Your task to perform on an android device: Clear all items from cart on target. Search for "apple airpods pro" on target, select the first entry, and add it to the cart. Image 0: 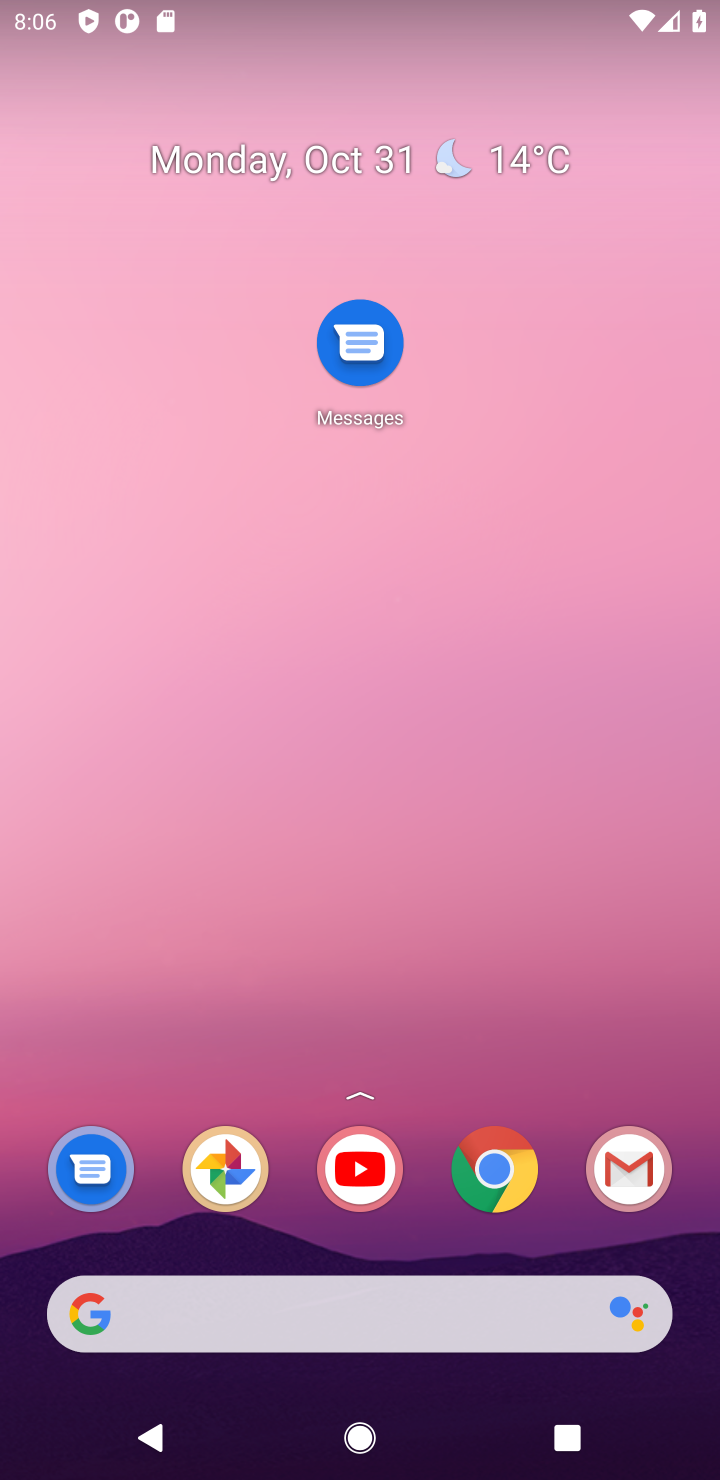
Step 0: drag from (428, 905) to (468, 496)
Your task to perform on an android device: Clear all items from cart on target. Search for "apple airpods pro" on target, select the first entry, and add it to the cart. Image 1: 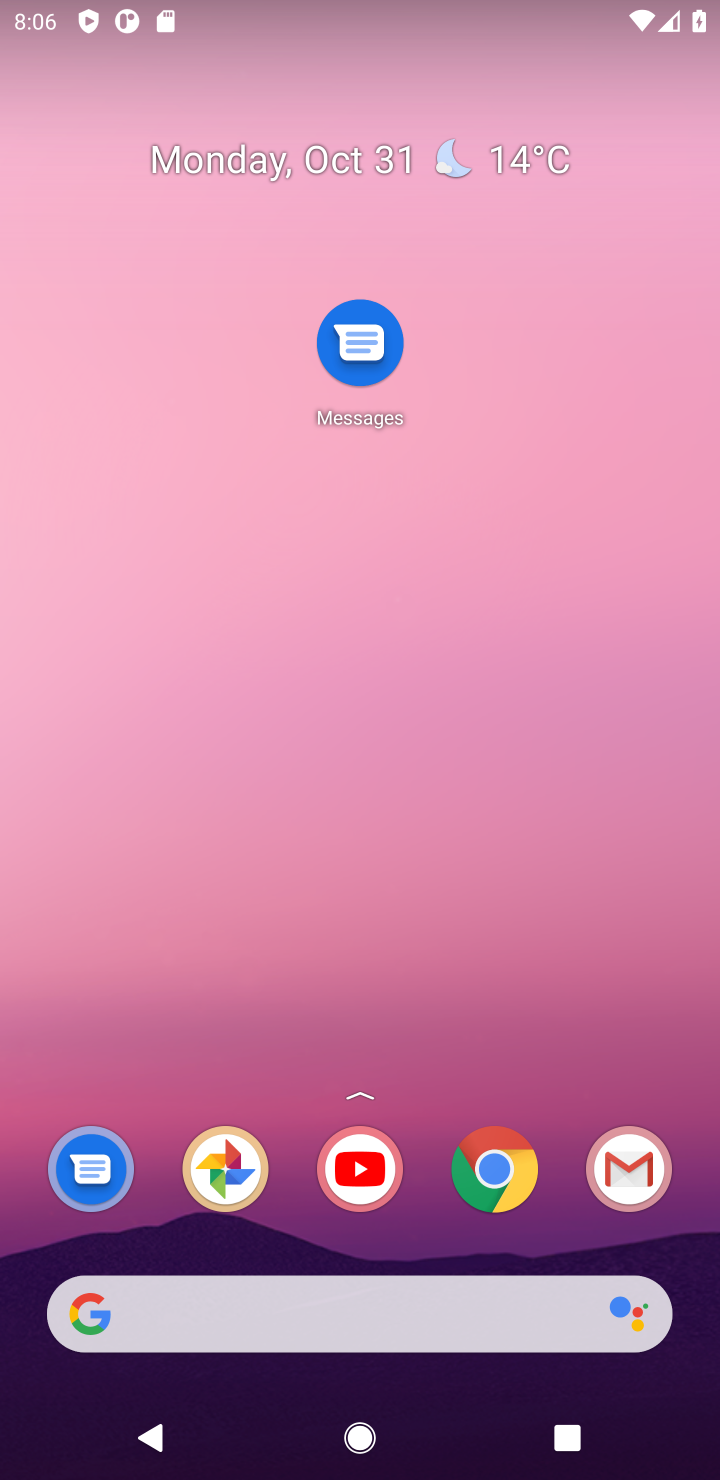
Step 1: drag from (327, 1149) to (289, 262)
Your task to perform on an android device: Clear all items from cart on target. Search for "apple airpods pro" on target, select the first entry, and add it to the cart. Image 2: 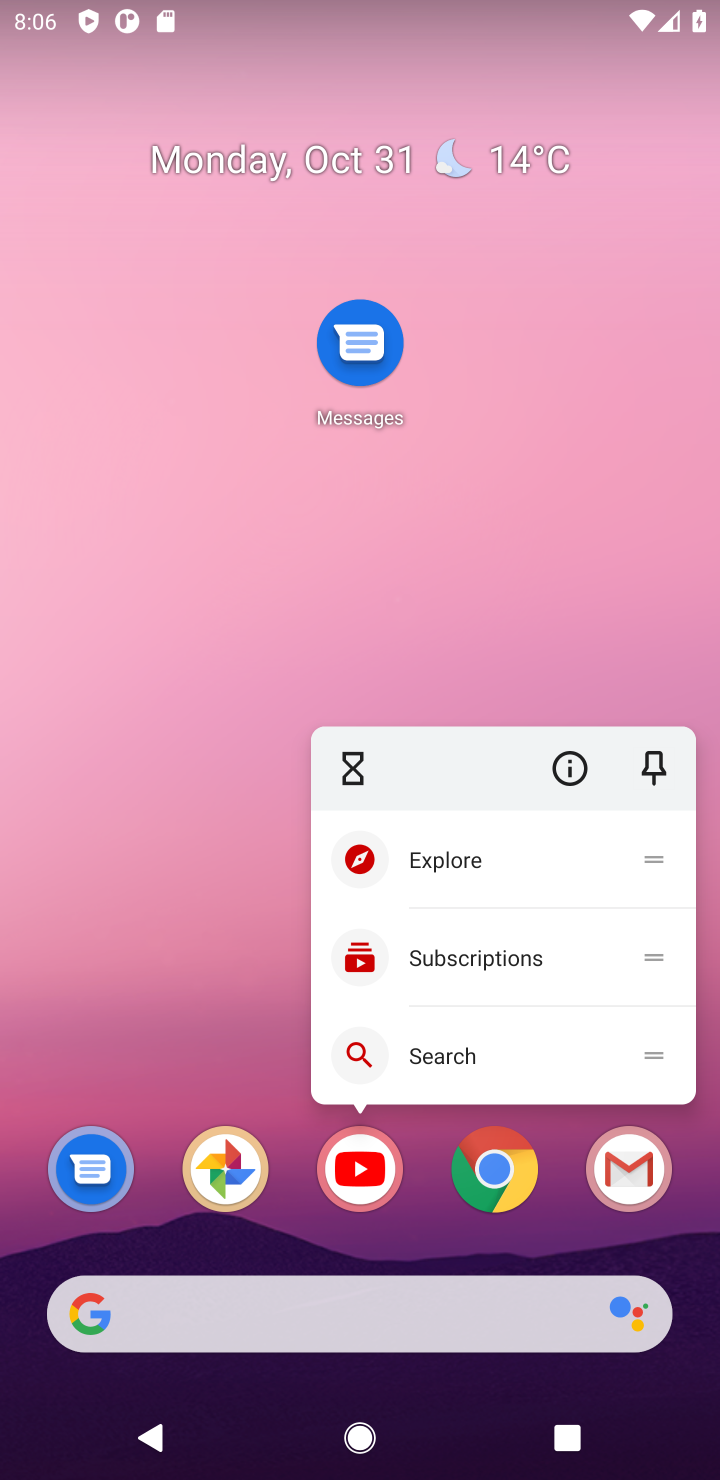
Step 2: click (134, 908)
Your task to perform on an android device: Clear all items from cart on target. Search for "apple airpods pro" on target, select the first entry, and add it to the cart. Image 3: 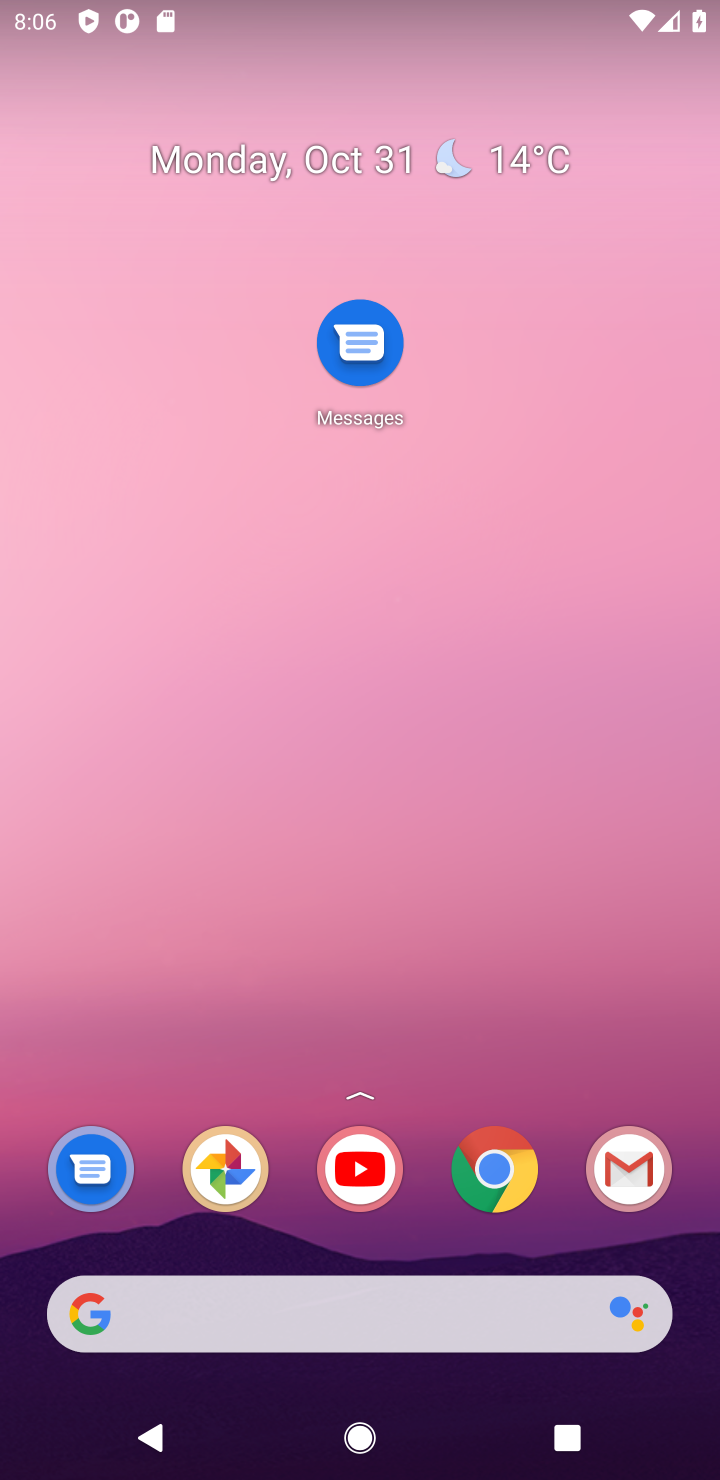
Step 3: drag from (347, 1141) to (401, 163)
Your task to perform on an android device: Clear all items from cart on target. Search for "apple airpods pro" on target, select the first entry, and add it to the cart. Image 4: 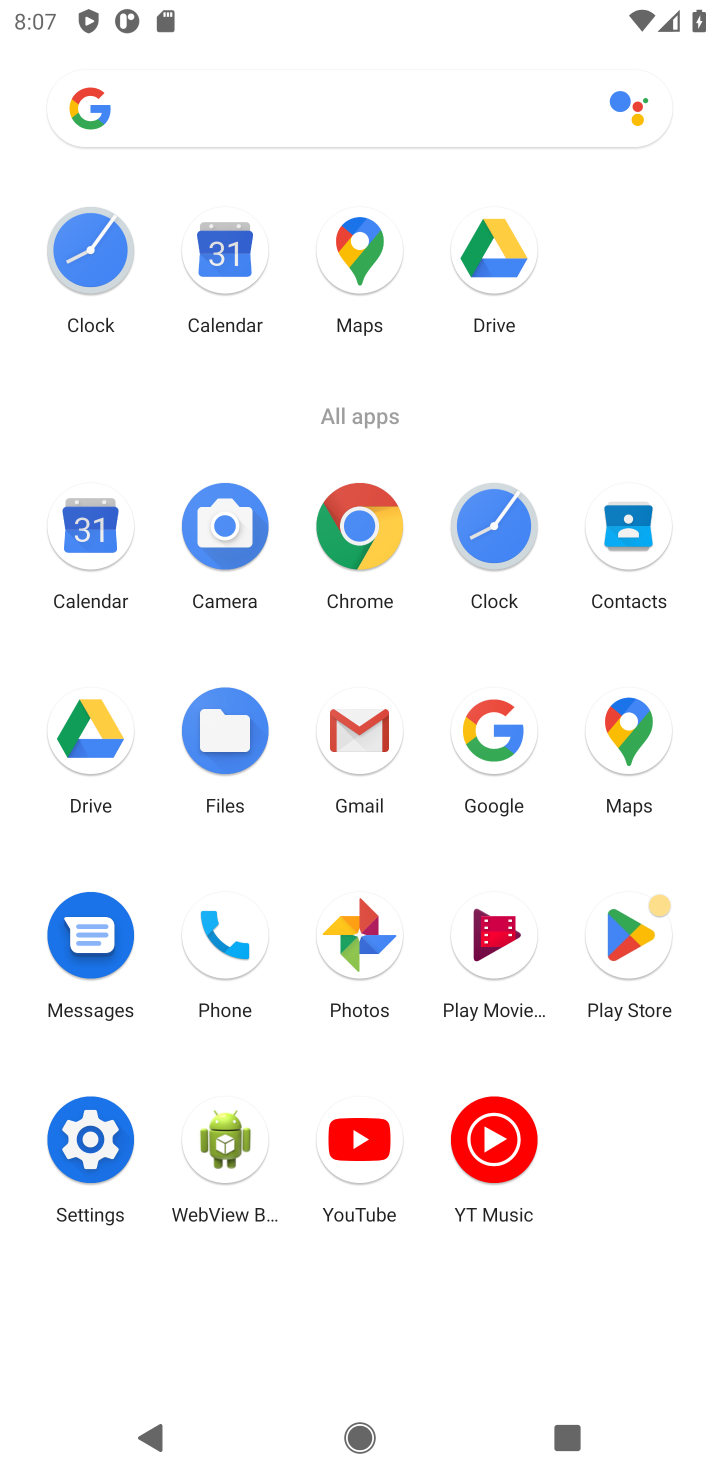
Step 4: click (491, 721)
Your task to perform on an android device: Clear all items from cart on target. Search for "apple airpods pro" on target, select the first entry, and add it to the cart. Image 5: 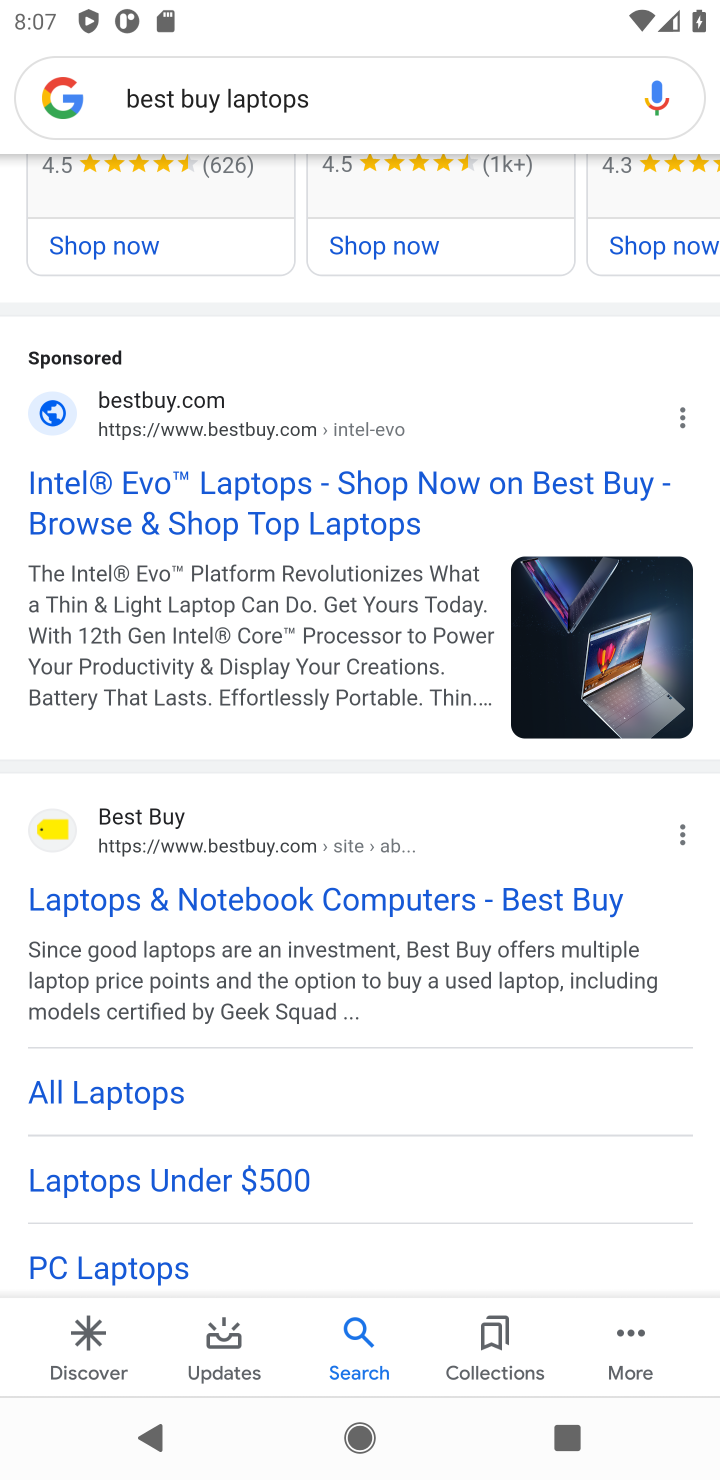
Step 5: click (362, 100)
Your task to perform on an android device: Clear all items from cart on target. Search for "apple airpods pro" on target, select the first entry, and add it to the cart. Image 6: 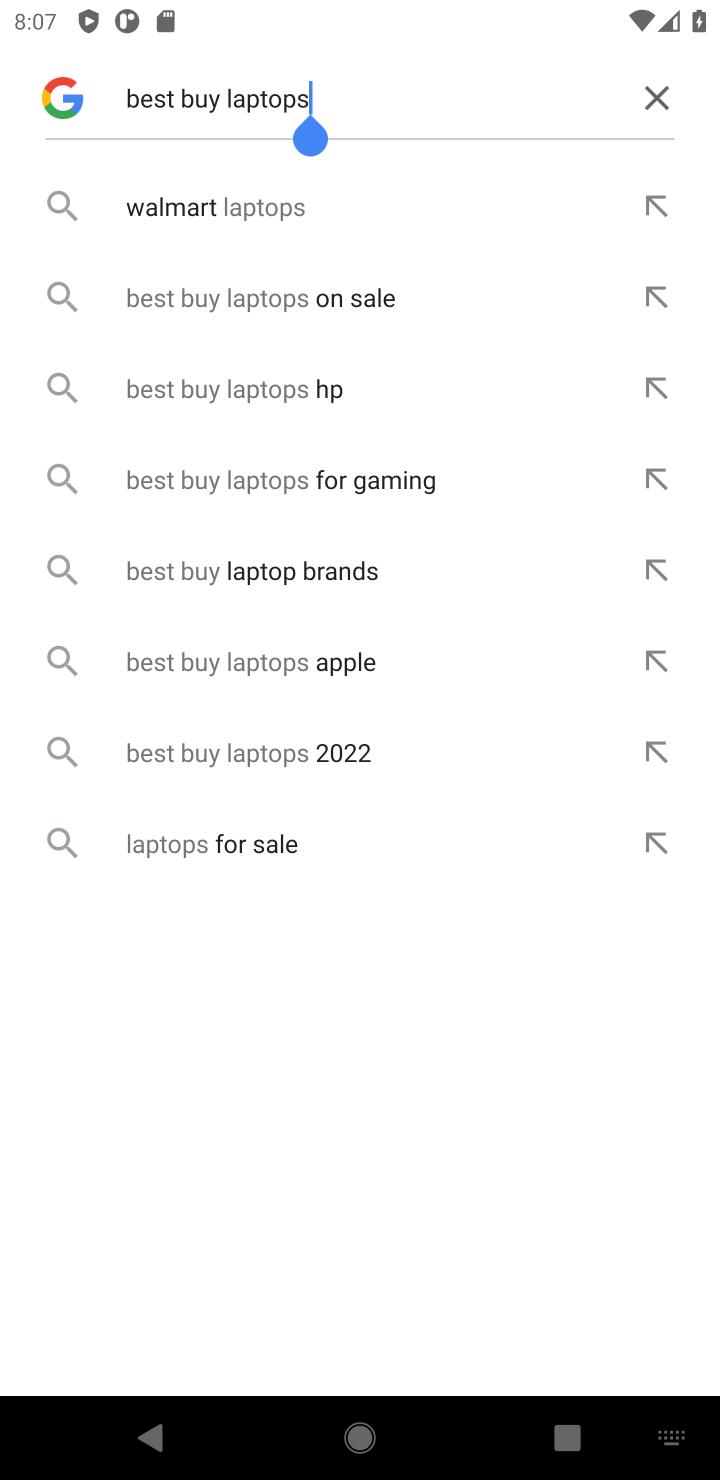
Step 6: click (652, 107)
Your task to perform on an android device: Clear all items from cart on target. Search for "apple airpods pro" on target, select the first entry, and add it to the cart. Image 7: 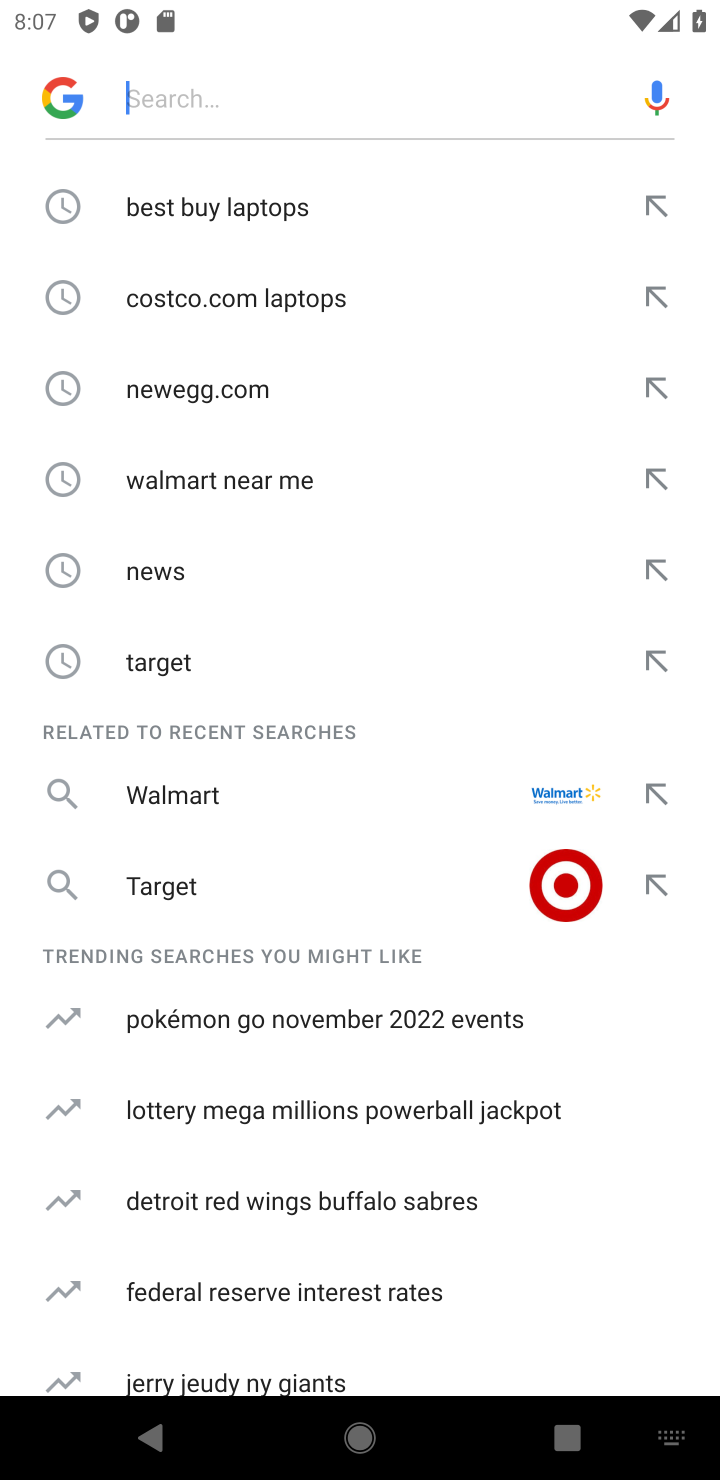
Step 7: click (288, 65)
Your task to perform on an android device: Clear all items from cart on target. Search for "apple airpods pro" on target, select the first entry, and add it to the cart. Image 8: 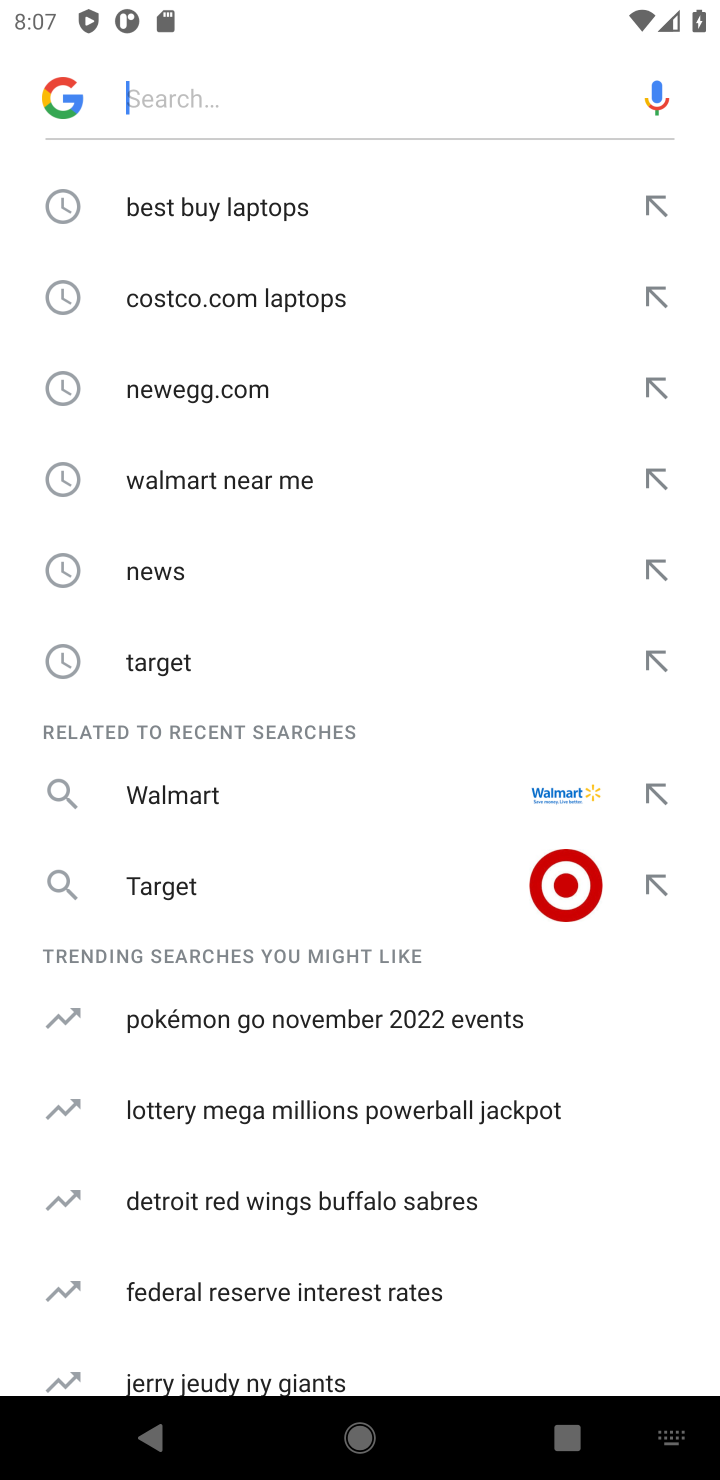
Step 8: type "target "
Your task to perform on an android device: Clear all items from cart on target. Search for "apple airpods pro" on target, select the first entry, and add it to the cart. Image 9: 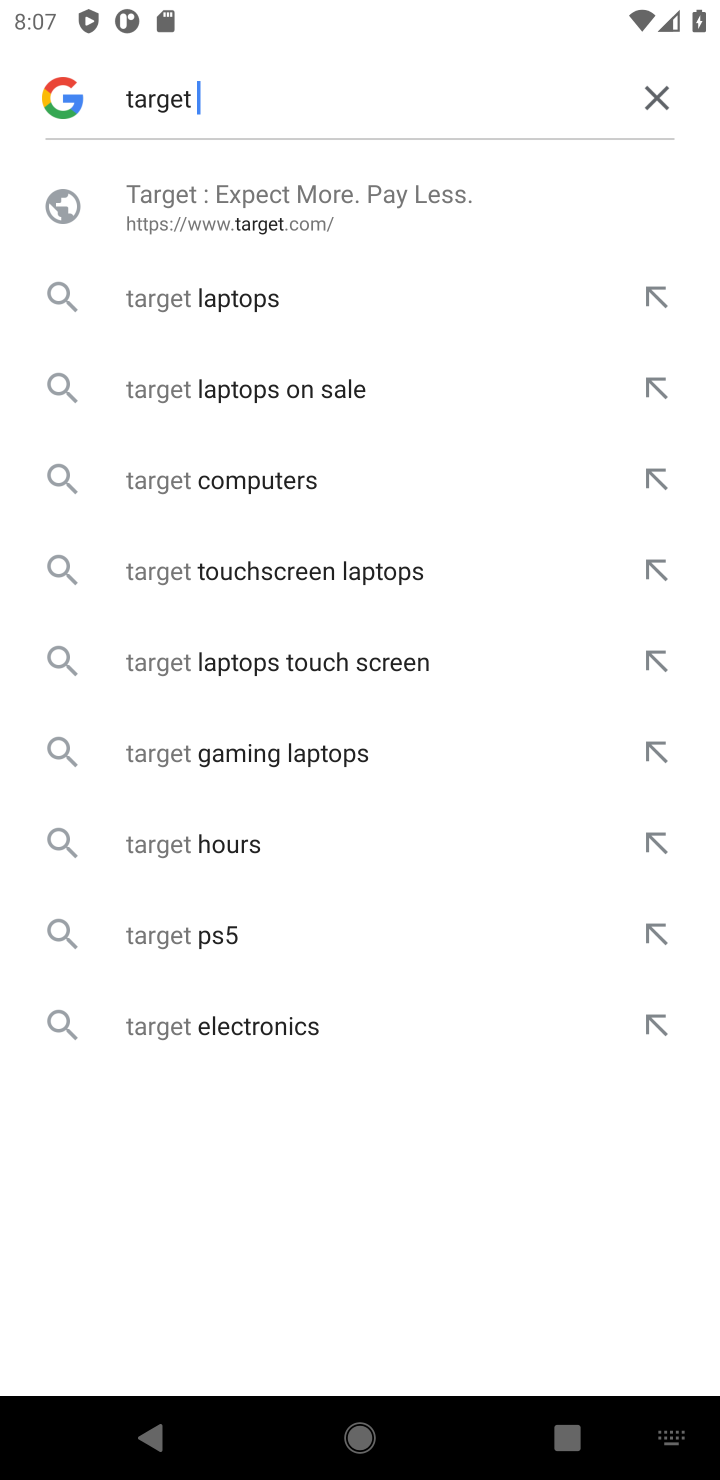
Step 9: click (274, 196)
Your task to perform on an android device: Clear all items from cart on target. Search for "apple airpods pro" on target, select the first entry, and add it to the cart. Image 10: 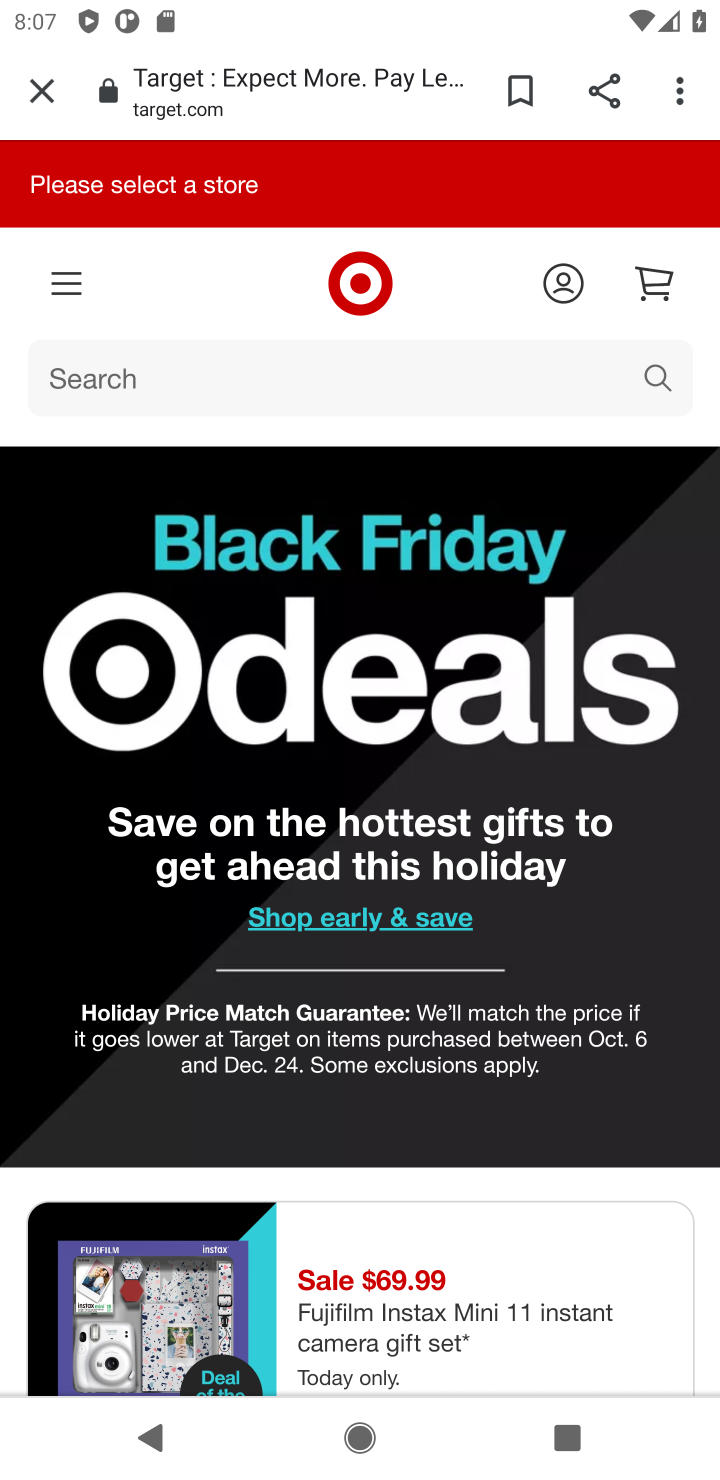
Step 10: click (211, 380)
Your task to perform on an android device: Clear all items from cart on target. Search for "apple airpods pro" on target, select the first entry, and add it to the cart. Image 11: 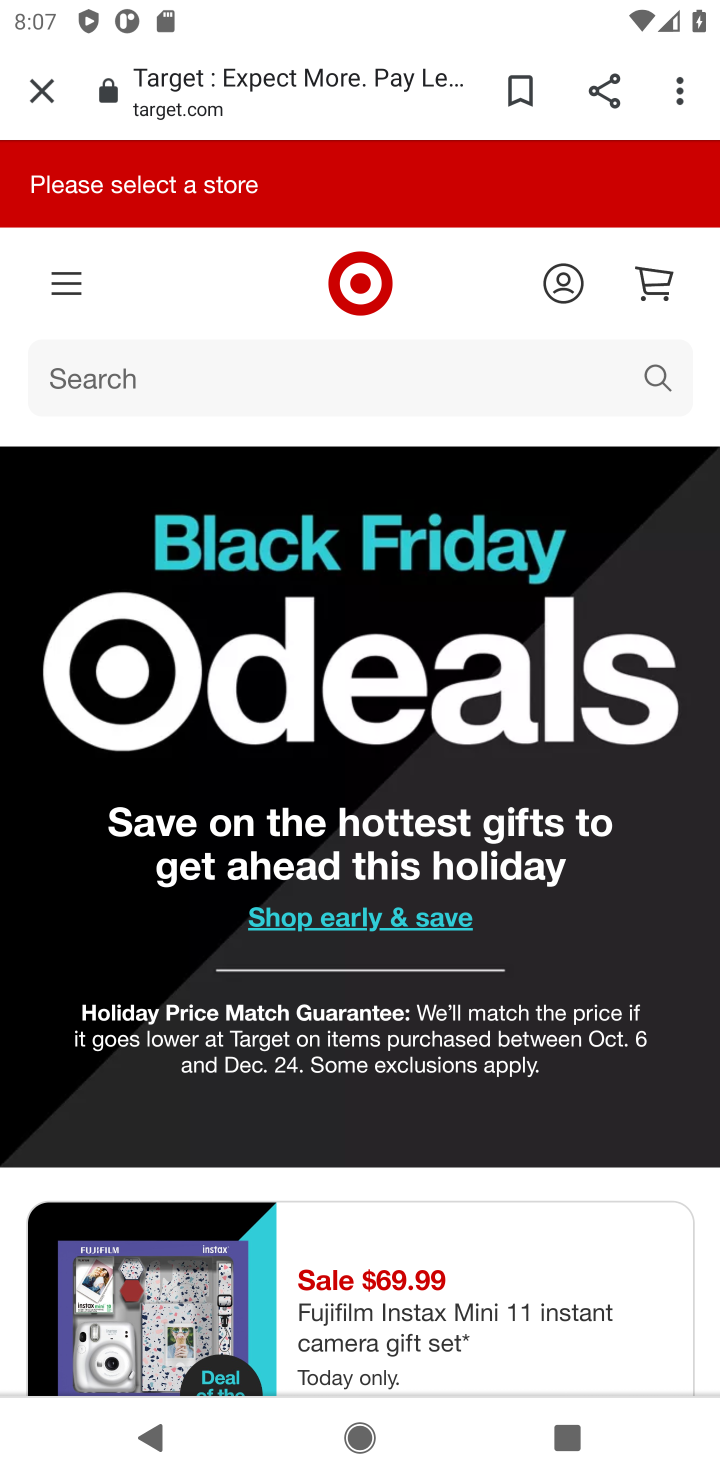
Step 11: type "airpods "
Your task to perform on an android device: Clear all items from cart on target. Search for "apple airpods pro" on target, select the first entry, and add it to the cart. Image 12: 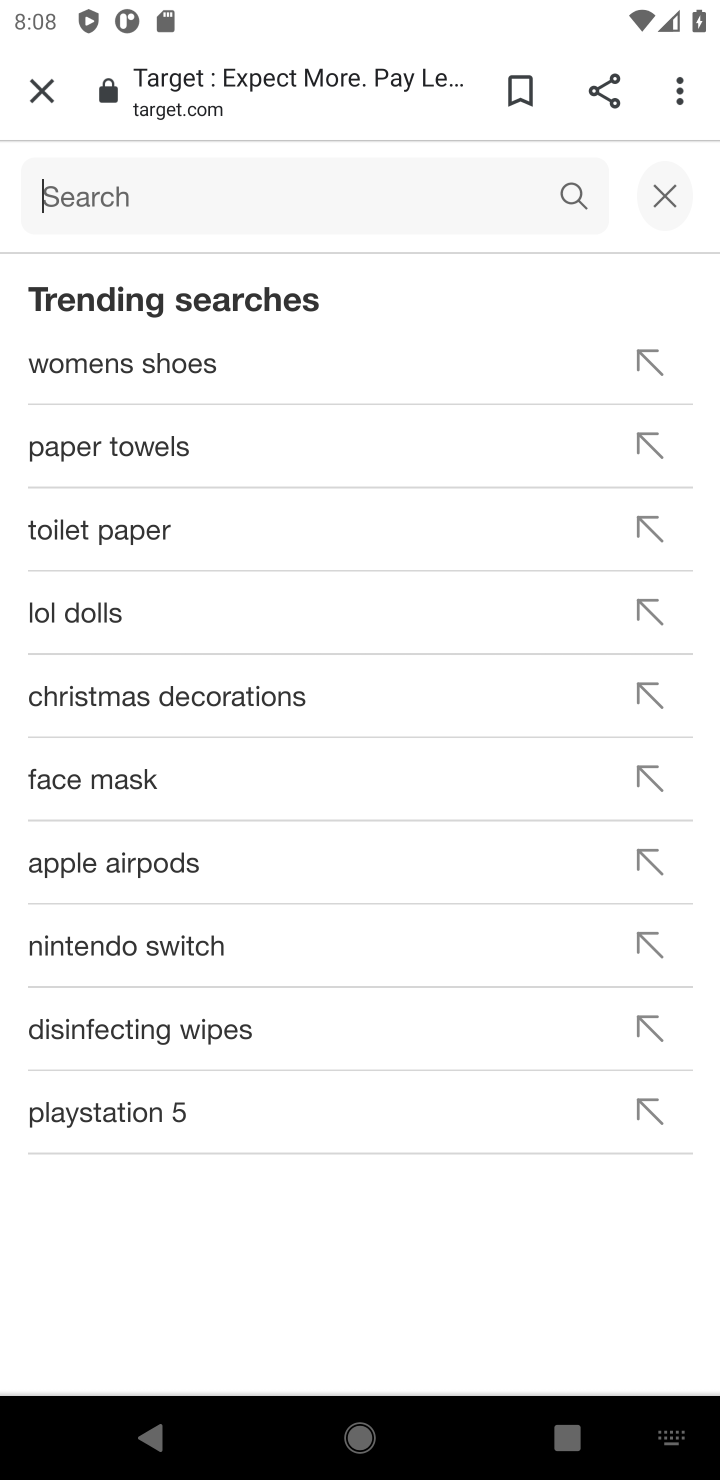
Step 12: click (289, 189)
Your task to perform on an android device: Clear all items from cart on target. Search for "apple airpods pro" on target, select the first entry, and add it to the cart. Image 13: 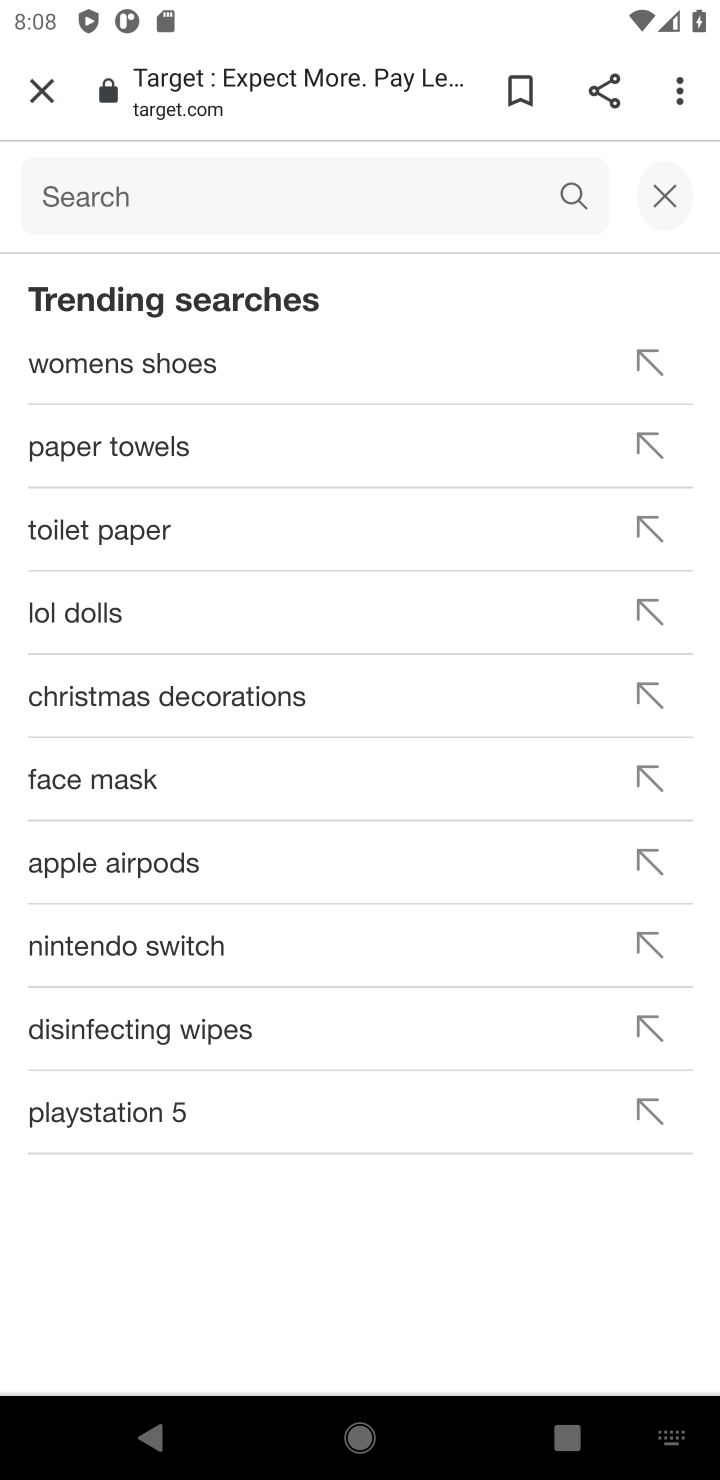
Step 13: type "airpods "
Your task to perform on an android device: Clear all items from cart on target. Search for "apple airpods pro" on target, select the first entry, and add it to the cart. Image 14: 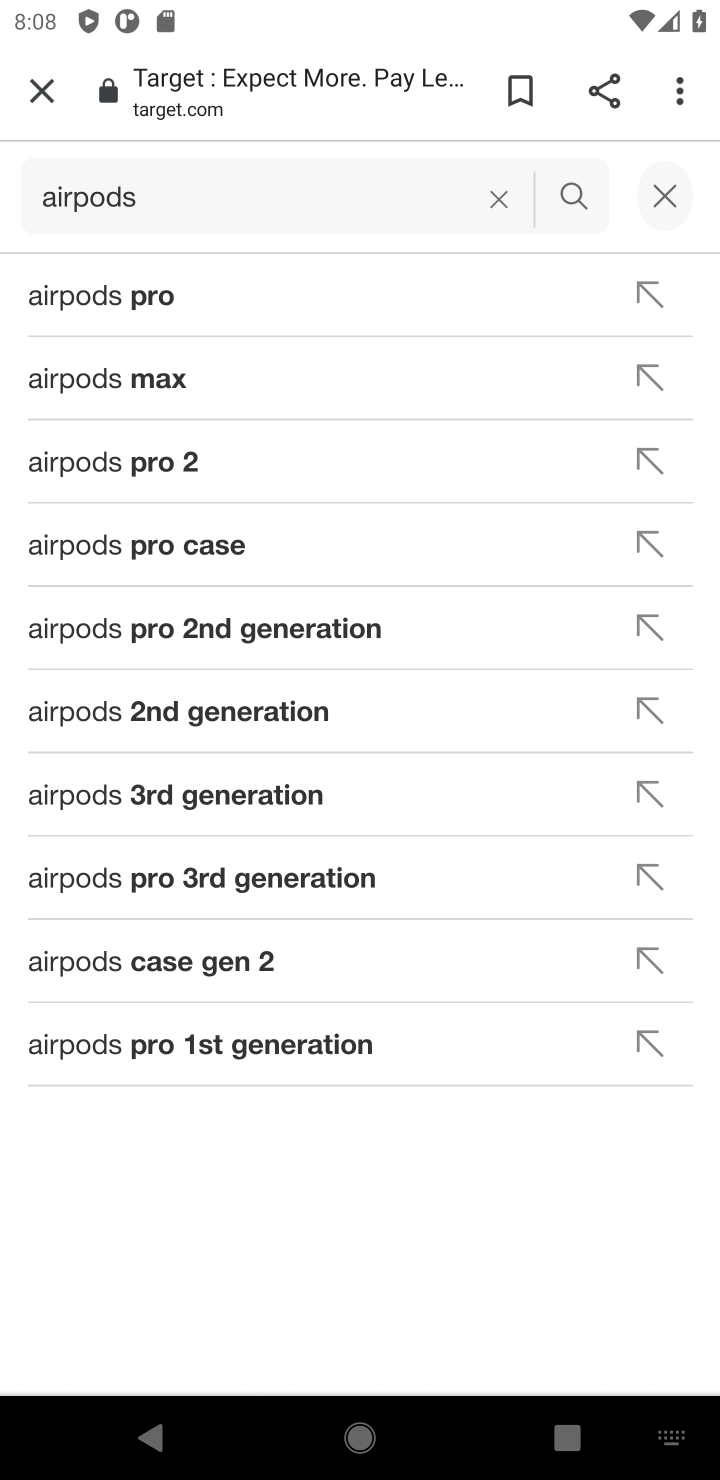
Step 14: click (223, 306)
Your task to perform on an android device: Clear all items from cart on target. Search for "apple airpods pro" on target, select the first entry, and add it to the cart. Image 15: 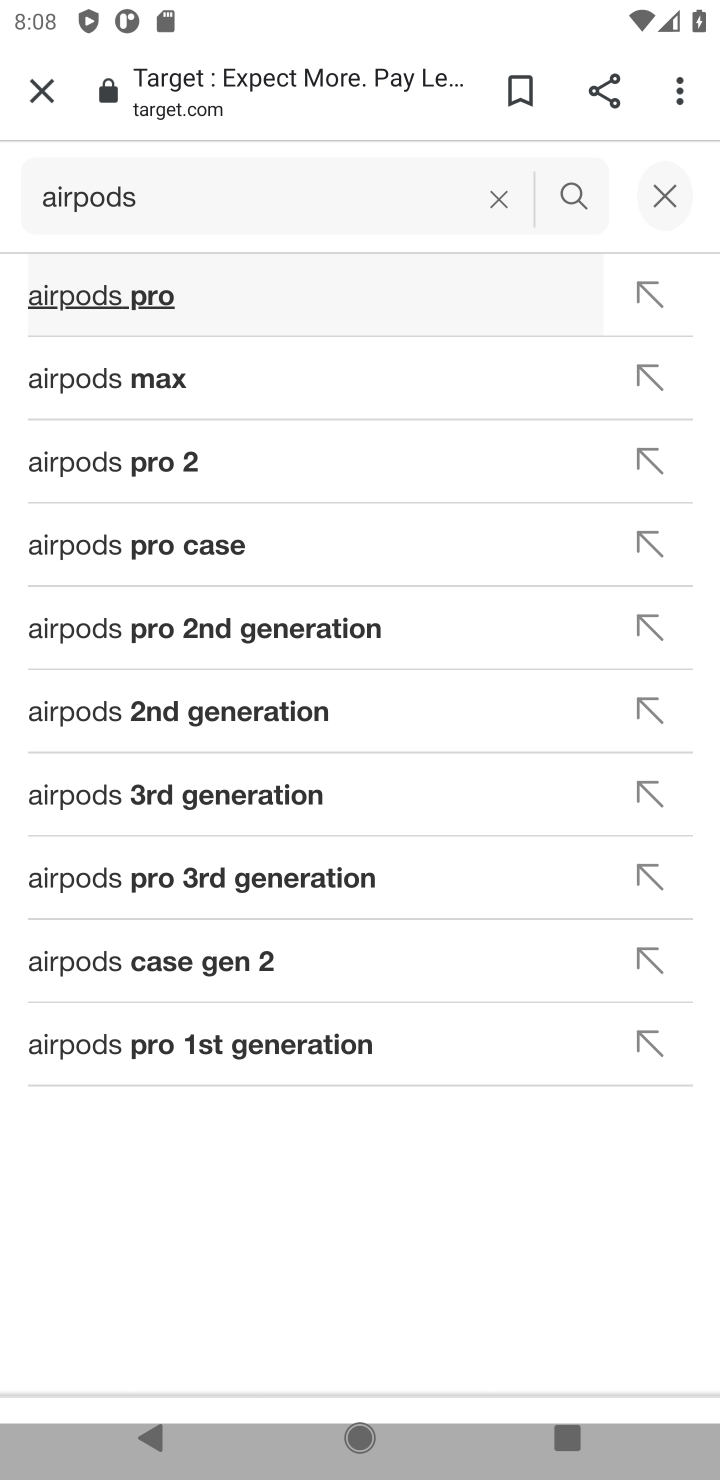
Step 15: click (223, 302)
Your task to perform on an android device: Clear all items from cart on target. Search for "apple airpods pro" on target, select the first entry, and add it to the cart. Image 16: 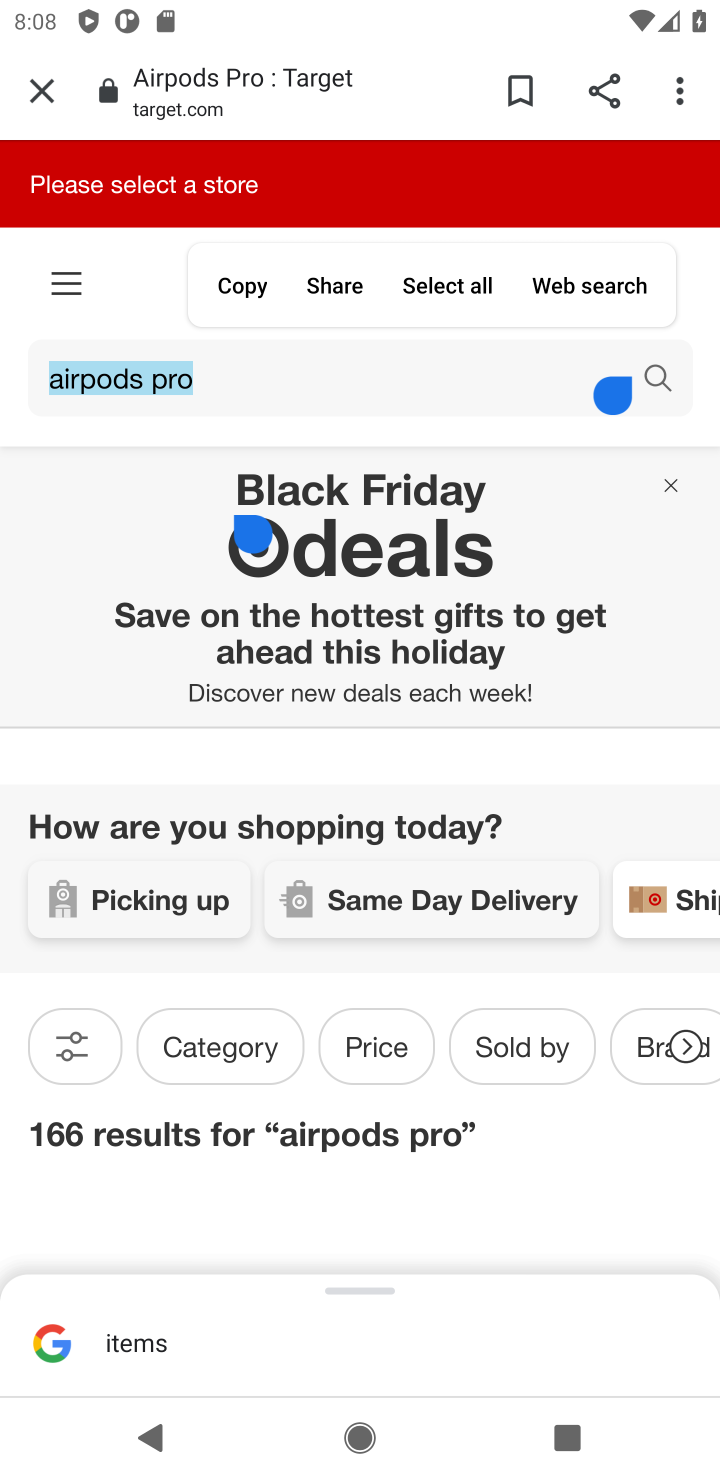
Step 16: drag from (421, 1134) to (503, 305)
Your task to perform on an android device: Clear all items from cart on target. Search for "apple airpods pro" on target, select the first entry, and add it to the cart. Image 17: 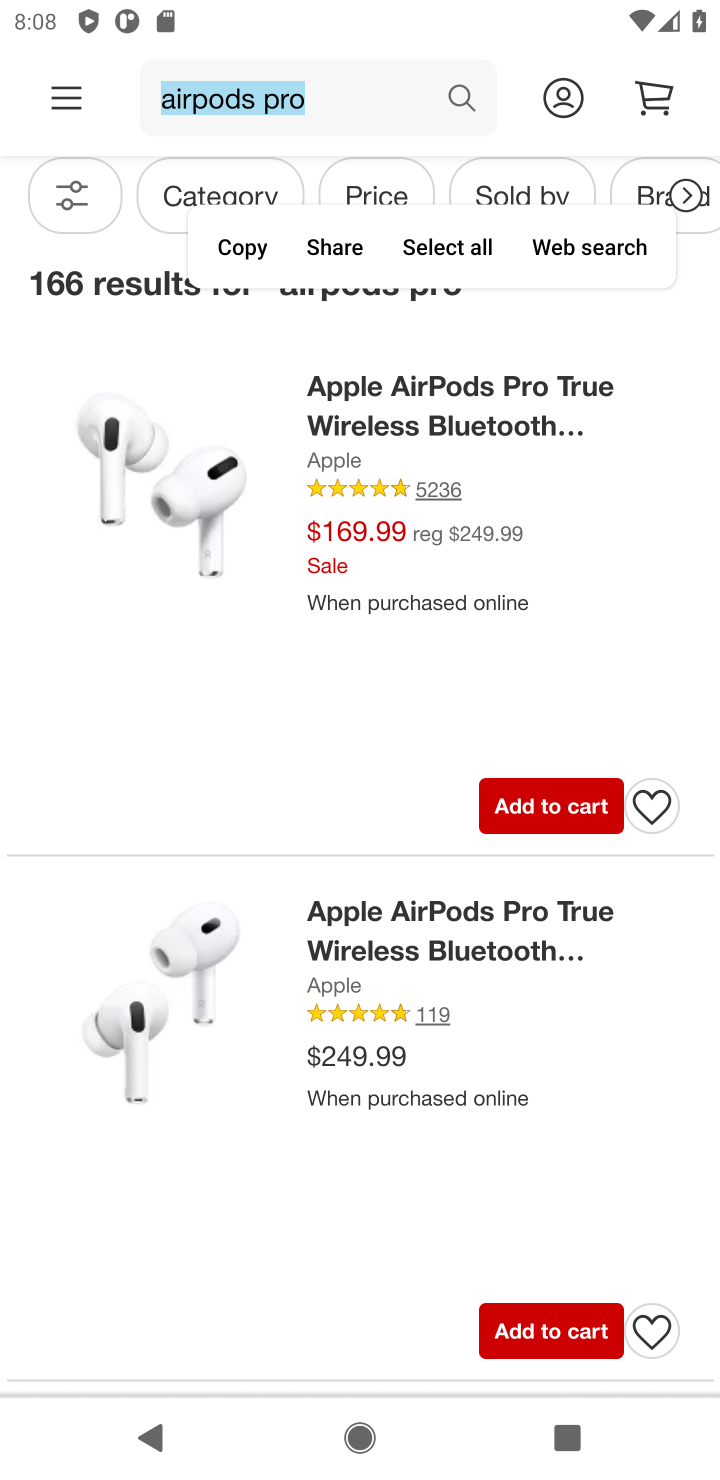
Step 17: click (371, 454)
Your task to perform on an android device: Clear all items from cart on target. Search for "apple airpods pro" on target, select the first entry, and add it to the cart. Image 18: 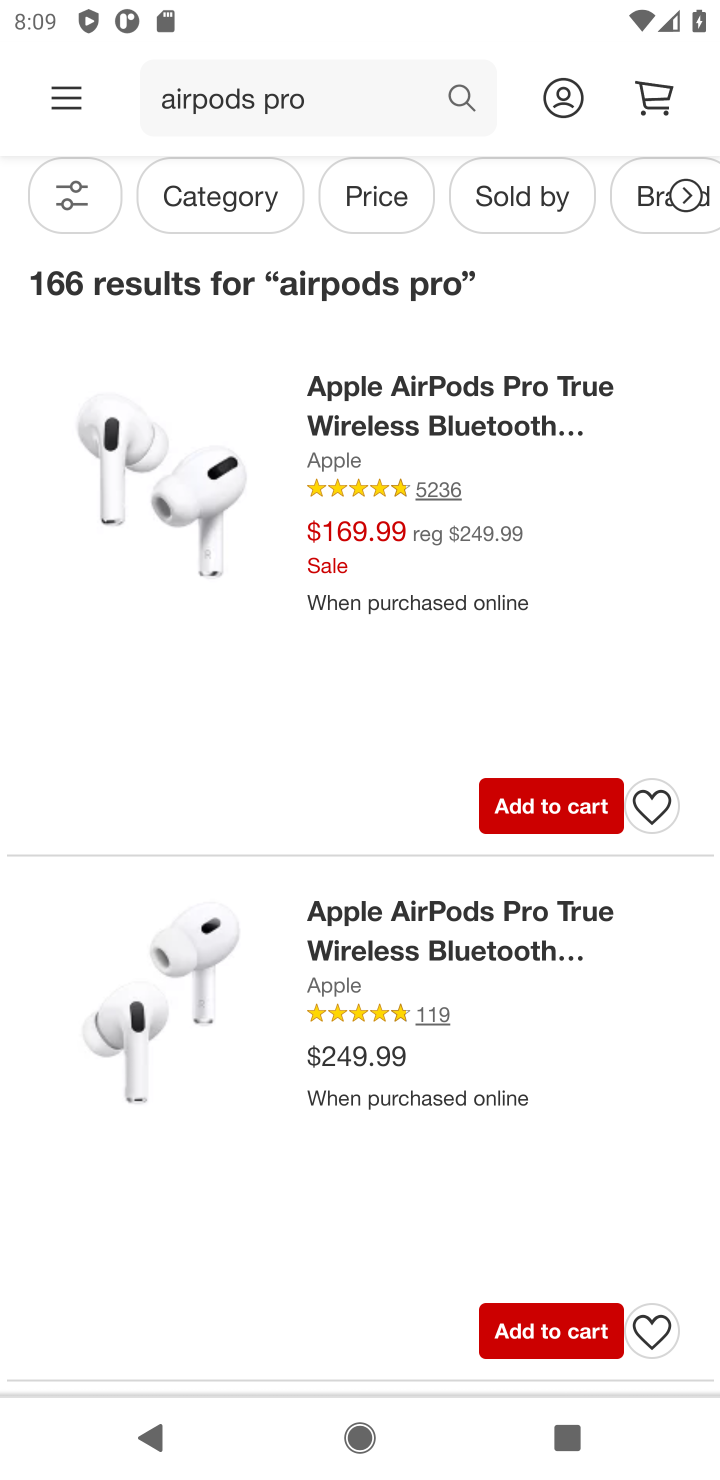
Step 18: click (577, 800)
Your task to perform on an android device: Clear all items from cart on target. Search for "apple airpods pro" on target, select the first entry, and add it to the cart. Image 19: 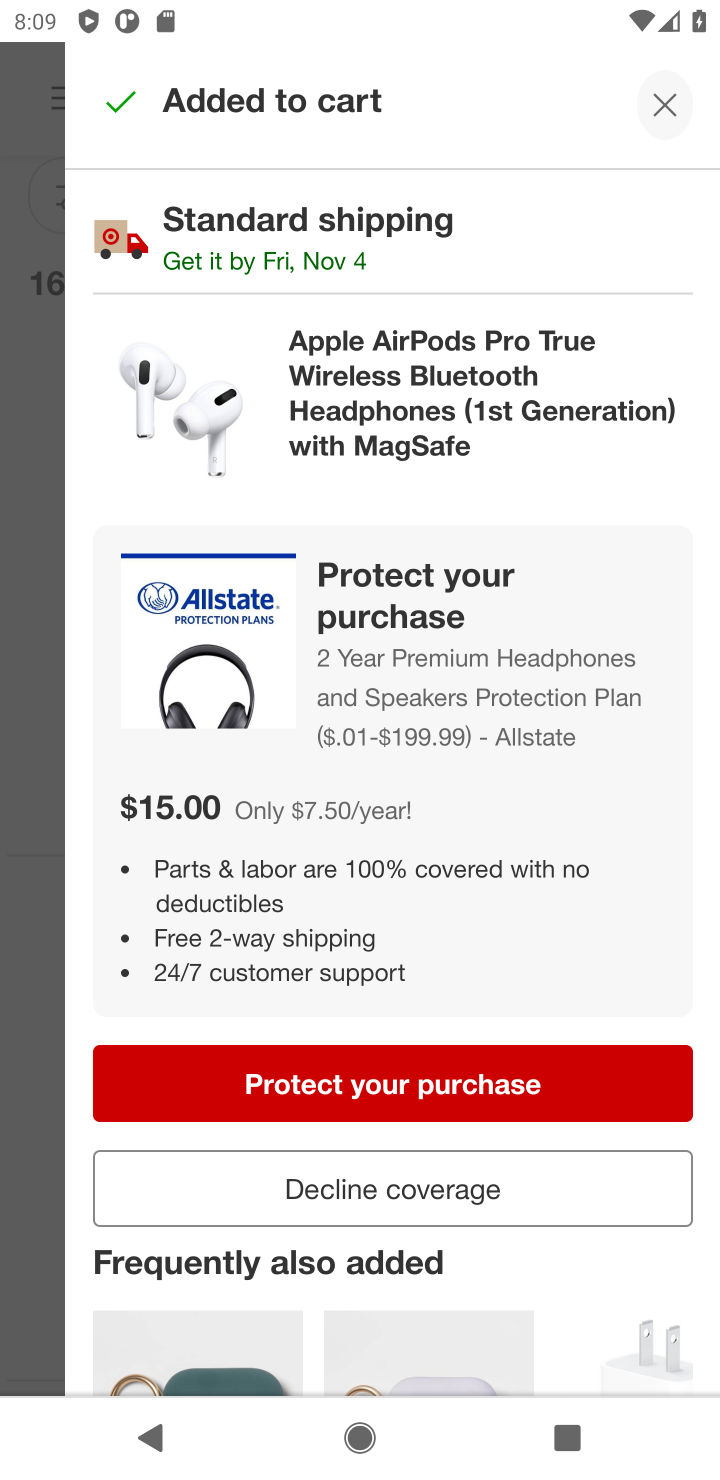
Step 19: task complete